Your task to perform on an android device: turn on sleep mode Image 0: 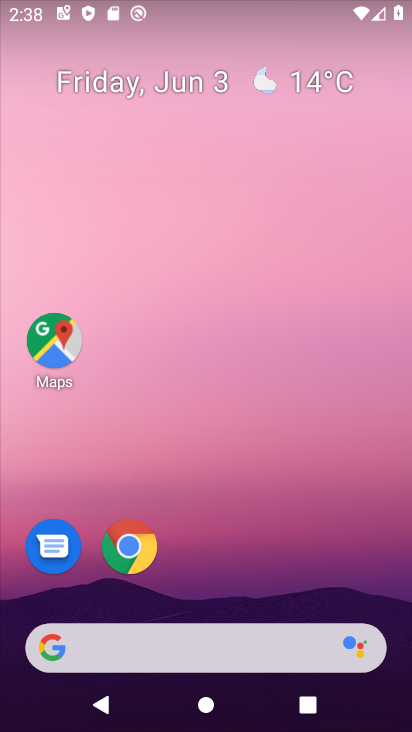
Step 0: drag from (251, 510) to (339, 51)
Your task to perform on an android device: turn on sleep mode Image 1: 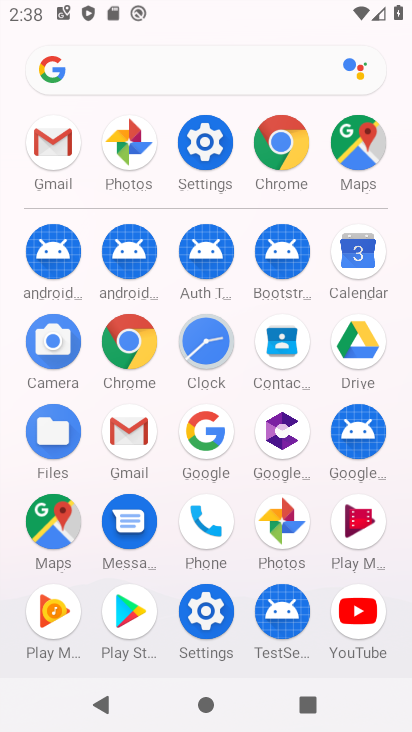
Step 1: click (216, 163)
Your task to perform on an android device: turn on sleep mode Image 2: 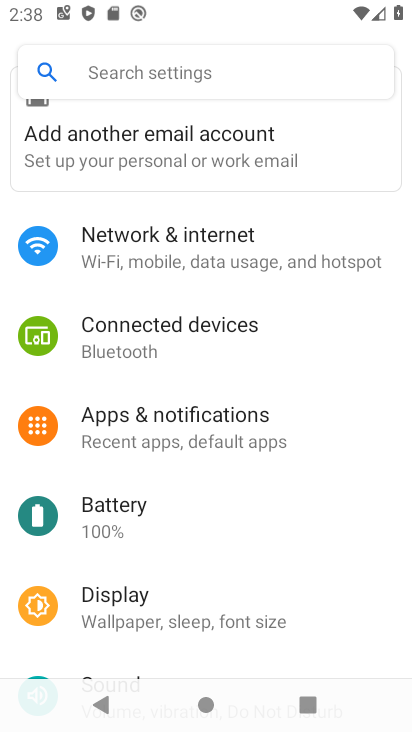
Step 2: click (117, 599)
Your task to perform on an android device: turn on sleep mode Image 3: 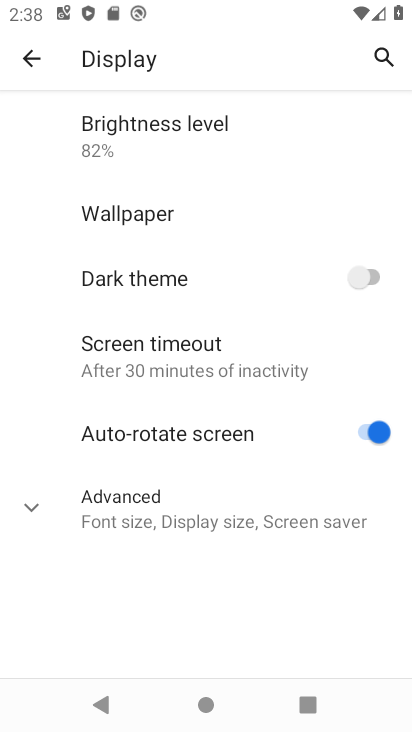
Step 3: task complete